Your task to perform on an android device: What is the recent news? Image 0: 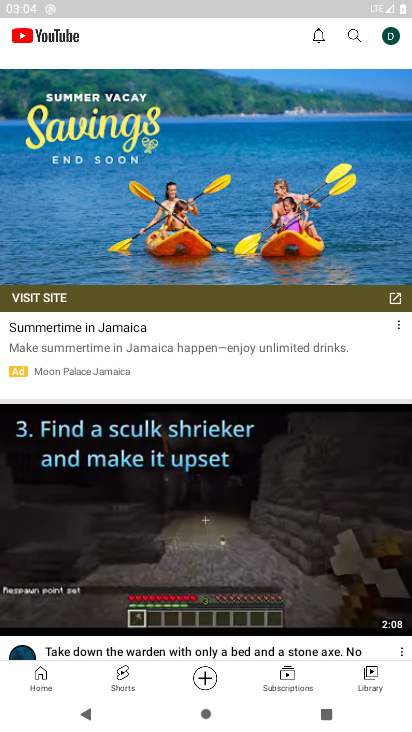
Step 0: press home button
Your task to perform on an android device: What is the recent news? Image 1: 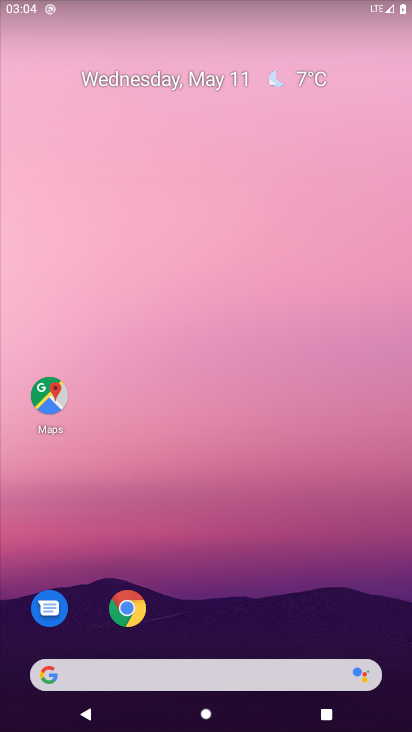
Step 1: task complete